Your task to perform on an android device: turn on translation in the chrome app Image 0: 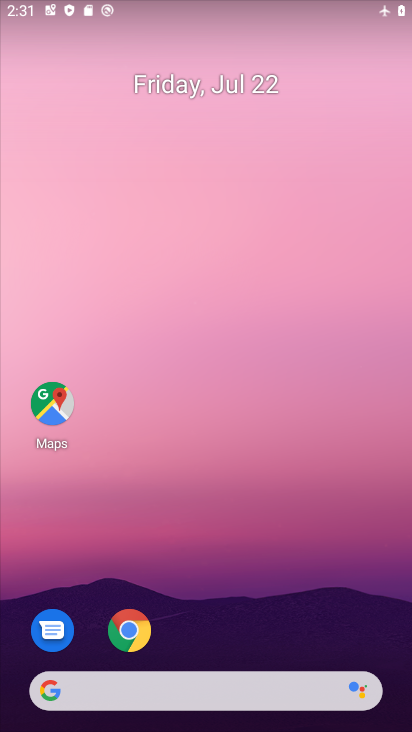
Step 0: drag from (240, 663) to (357, 73)
Your task to perform on an android device: turn on translation in the chrome app Image 1: 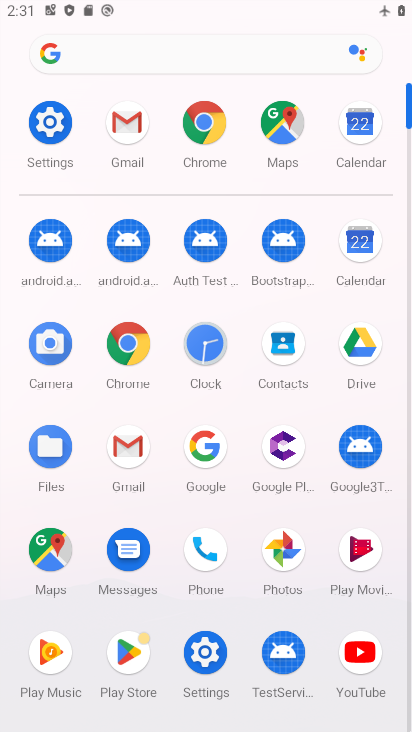
Step 1: click (209, 141)
Your task to perform on an android device: turn on translation in the chrome app Image 2: 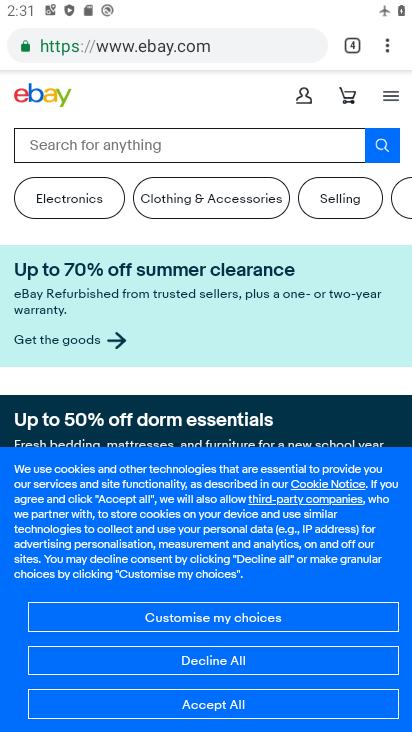
Step 2: drag from (392, 45) to (224, 513)
Your task to perform on an android device: turn on translation in the chrome app Image 3: 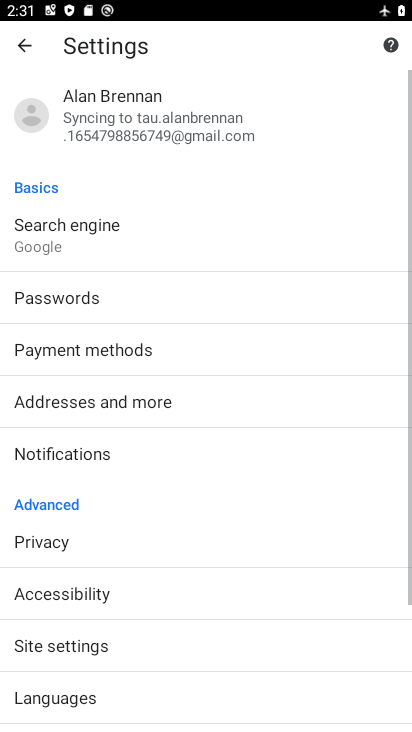
Step 3: drag from (132, 638) to (71, 181)
Your task to perform on an android device: turn on translation in the chrome app Image 4: 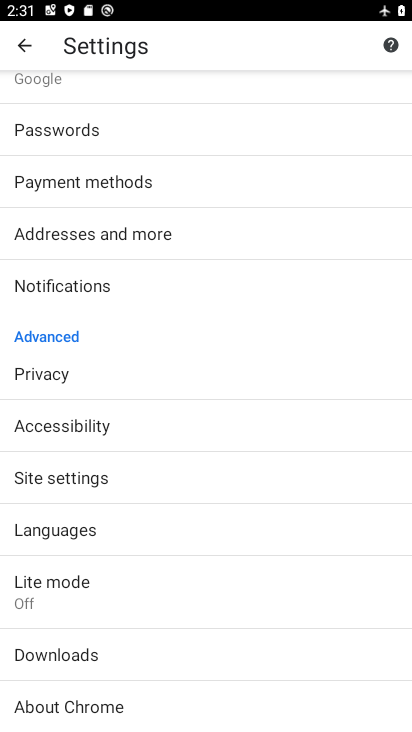
Step 4: click (41, 546)
Your task to perform on an android device: turn on translation in the chrome app Image 5: 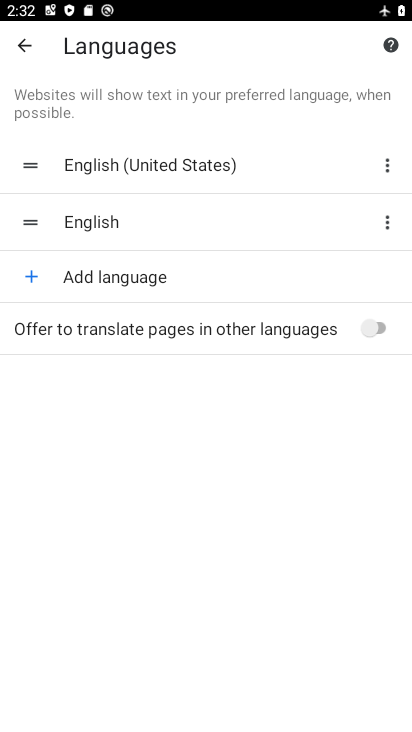
Step 5: click (374, 336)
Your task to perform on an android device: turn on translation in the chrome app Image 6: 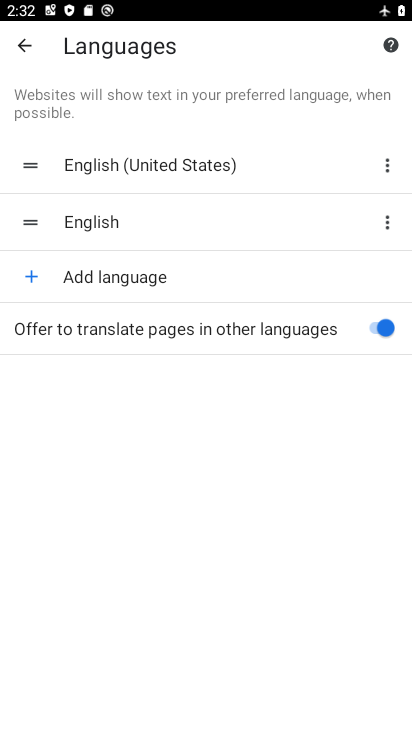
Step 6: task complete